Your task to perform on an android device: Open Youtube and go to the subscriptions tab Image 0: 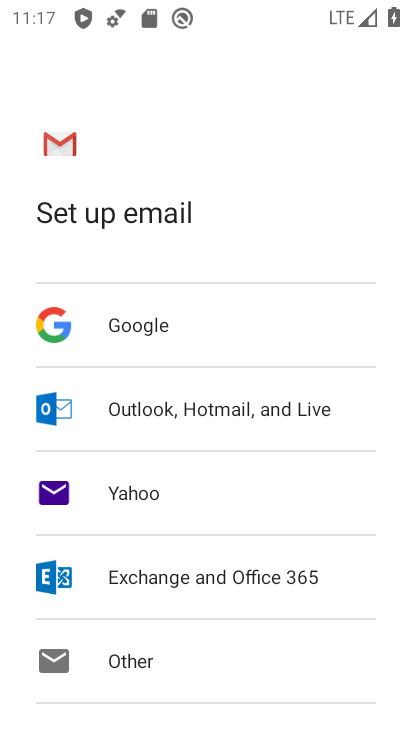
Step 0: press home button
Your task to perform on an android device: Open Youtube and go to the subscriptions tab Image 1: 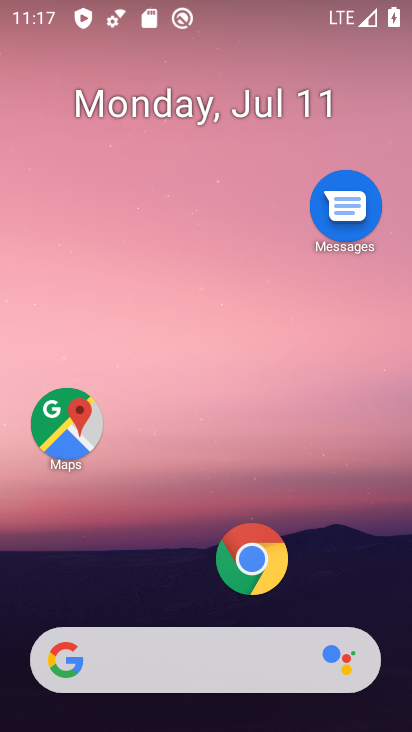
Step 1: drag from (372, 600) to (383, 171)
Your task to perform on an android device: Open Youtube and go to the subscriptions tab Image 2: 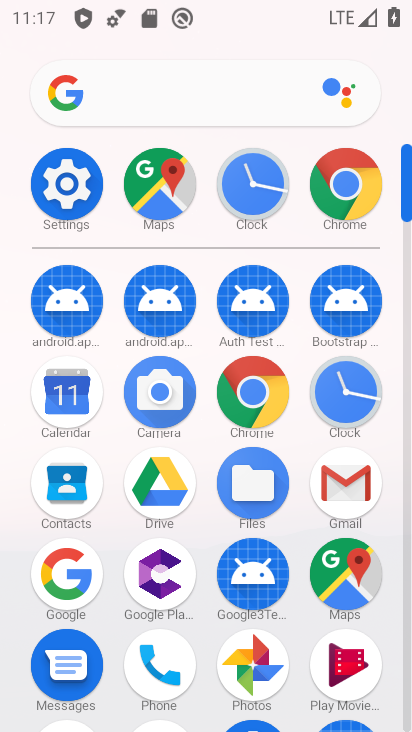
Step 2: drag from (376, 617) to (389, 338)
Your task to perform on an android device: Open Youtube and go to the subscriptions tab Image 3: 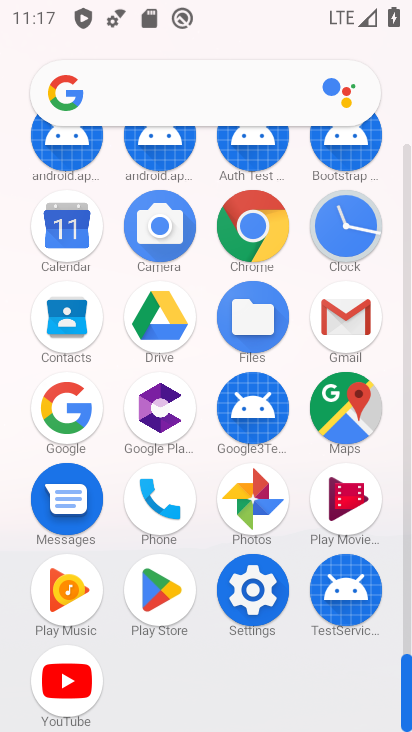
Step 3: click (66, 670)
Your task to perform on an android device: Open Youtube and go to the subscriptions tab Image 4: 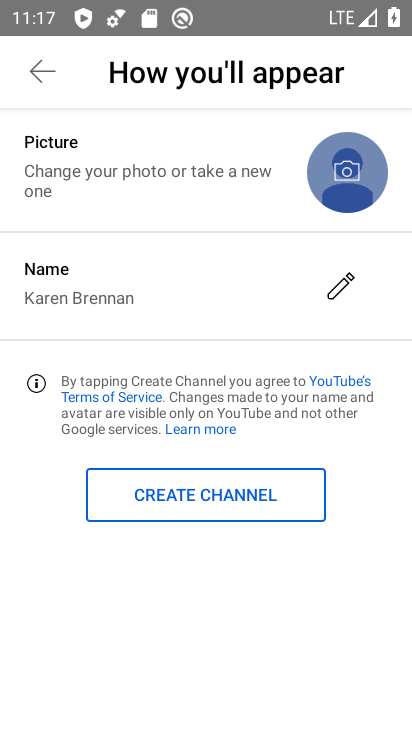
Step 4: press back button
Your task to perform on an android device: Open Youtube and go to the subscriptions tab Image 5: 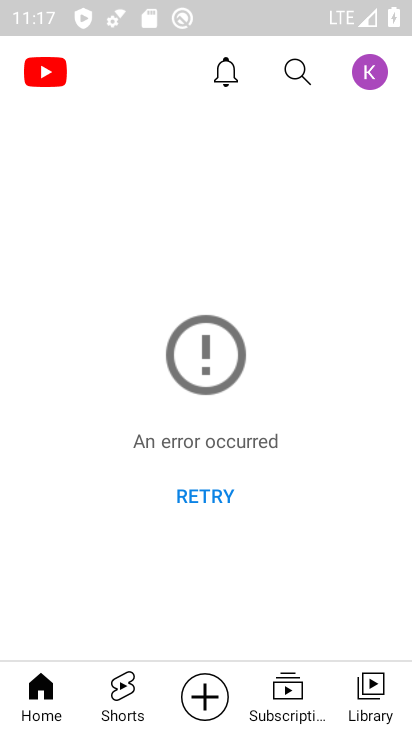
Step 5: click (291, 698)
Your task to perform on an android device: Open Youtube and go to the subscriptions tab Image 6: 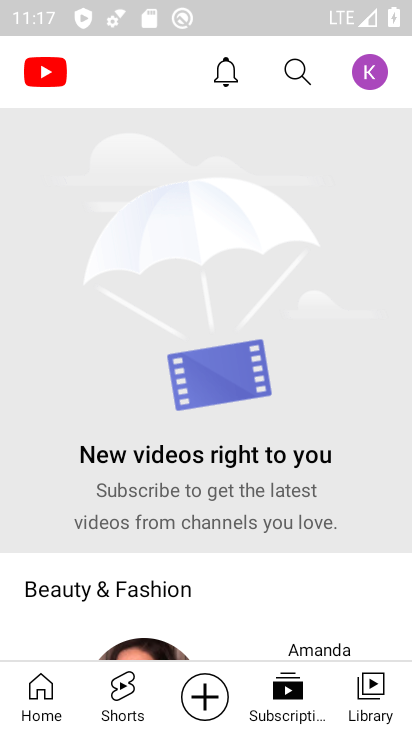
Step 6: task complete